Your task to perform on an android device: show emergency info Image 0: 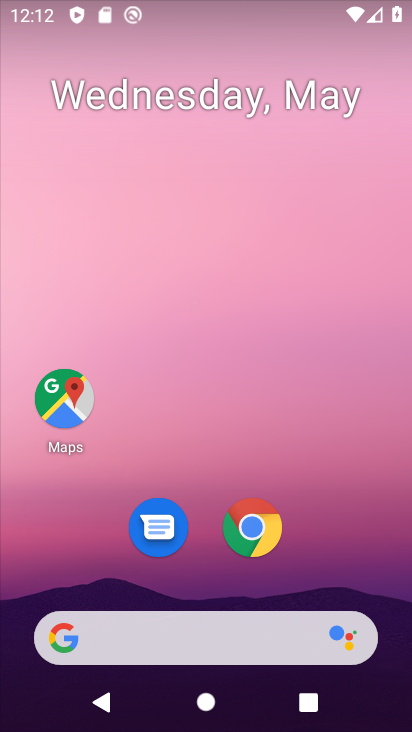
Step 0: drag from (307, 290) to (212, 30)
Your task to perform on an android device: show emergency info Image 1: 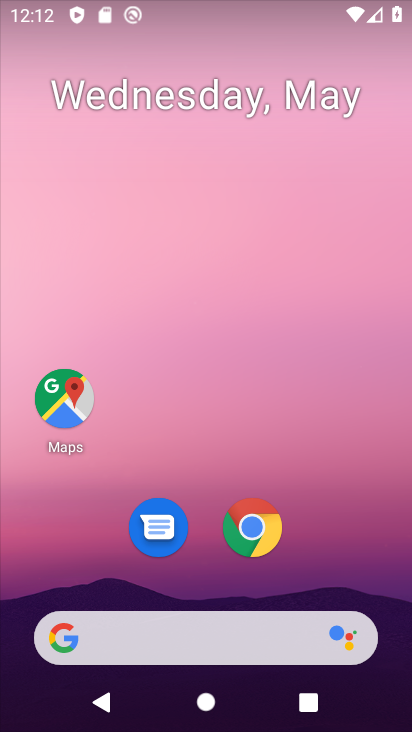
Step 1: drag from (321, 519) to (243, 62)
Your task to perform on an android device: show emergency info Image 2: 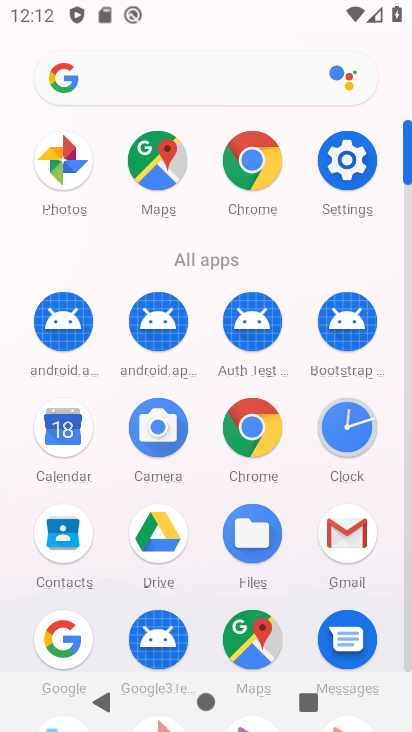
Step 2: click (352, 166)
Your task to perform on an android device: show emergency info Image 3: 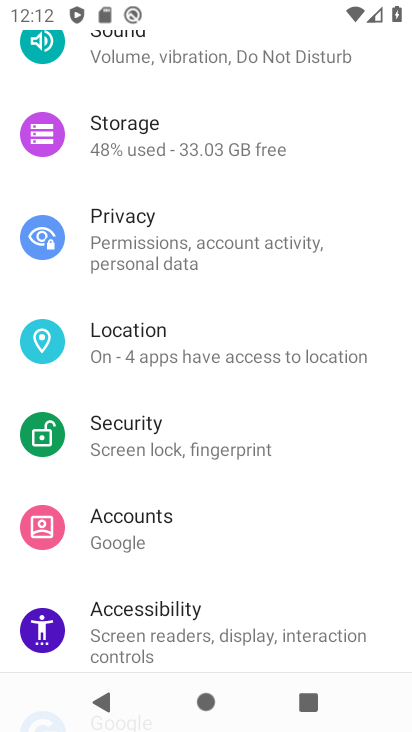
Step 3: drag from (260, 538) to (238, 93)
Your task to perform on an android device: show emergency info Image 4: 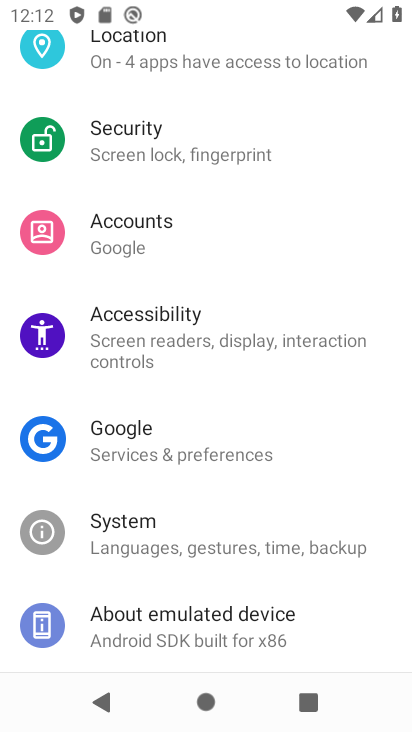
Step 4: drag from (285, 595) to (213, 220)
Your task to perform on an android device: show emergency info Image 5: 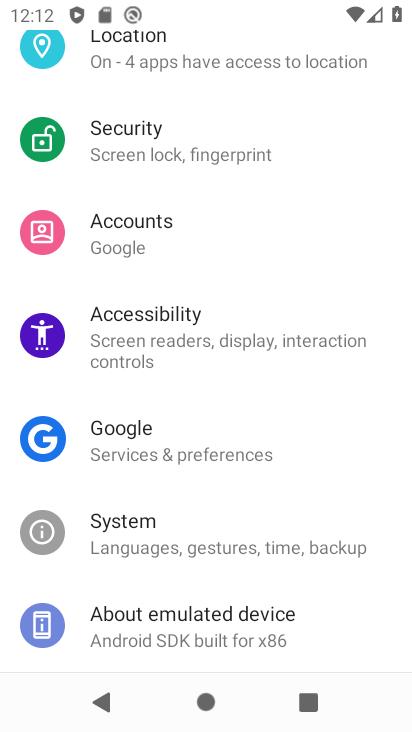
Step 5: click (197, 613)
Your task to perform on an android device: show emergency info Image 6: 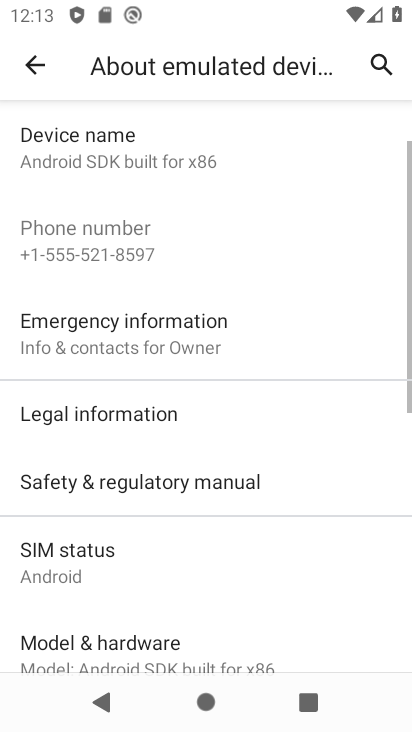
Step 6: drag from (262, 512) to (279, 166)
Your task to perform on an android device: show emergency info Image 7: 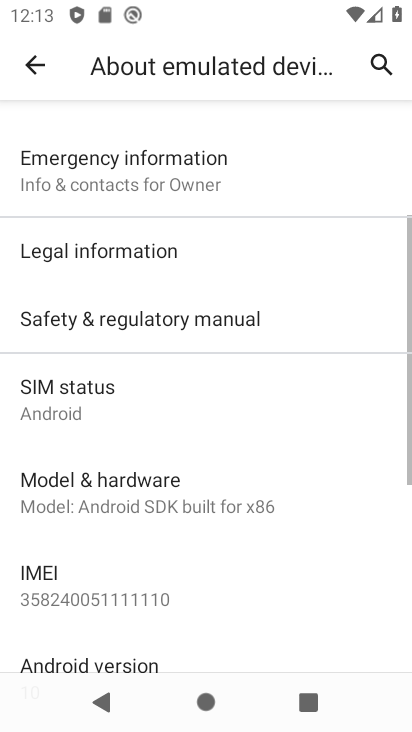
Step 7: click (168, 165)
Your task to perform on an android device: show emergency info Image 8: 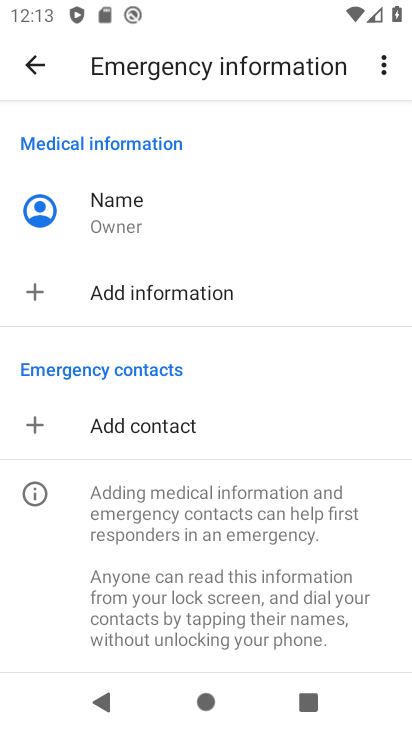
Step 8: task complete